Your task to perform on an android device: set the timer Image 0: 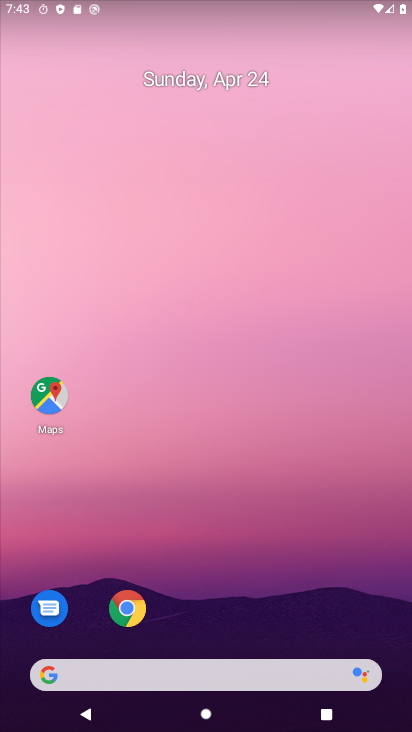
Step 0: drag from (259, 625) to (255, 97)
Your task to perform on an android device: set the timer Image 1: 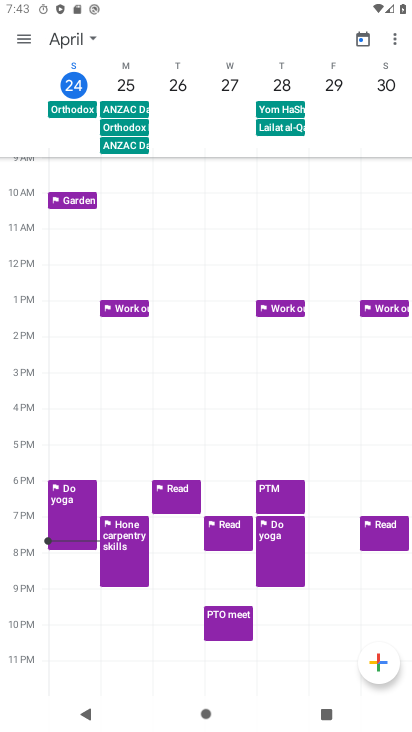
Step 1: press home button
Your task to perform on an android device: set the timer Image 2: 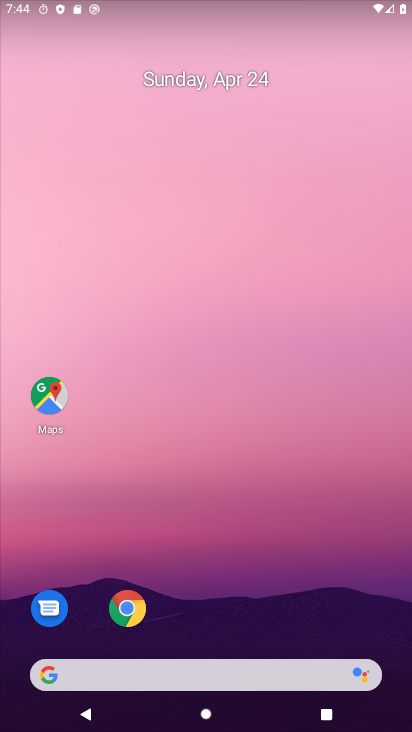
Step 2: drag from (235, 576) to (252, 149)
Your task to perform on an android device: set the timer Image 3: 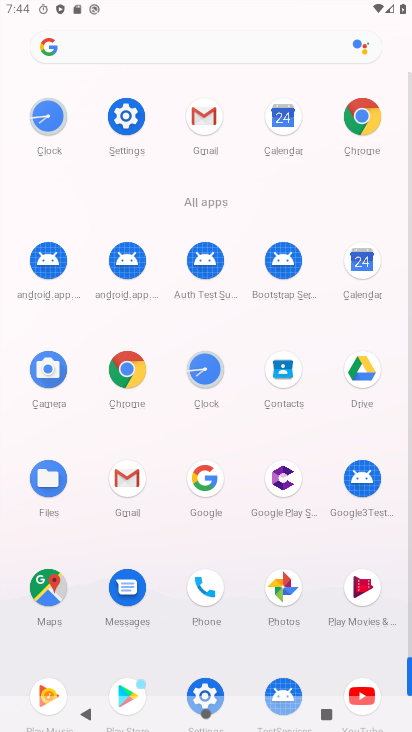
Step 3: click (208, 376)
Your task to perform on an android device: set the timer Image 4: 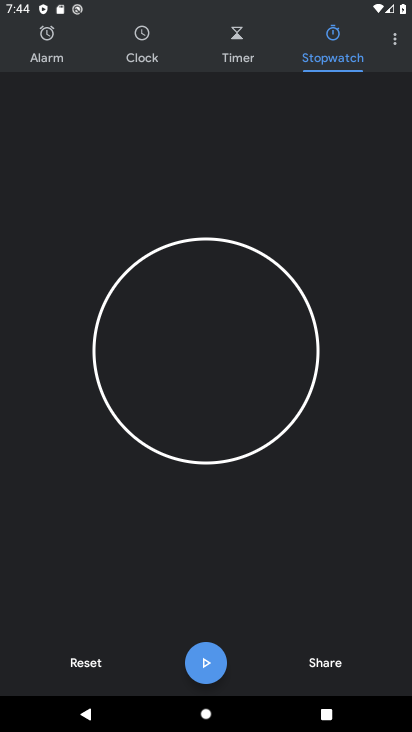
Step 4: click (238, 35)
Your task to perform on an android device: set the timer Image 5: 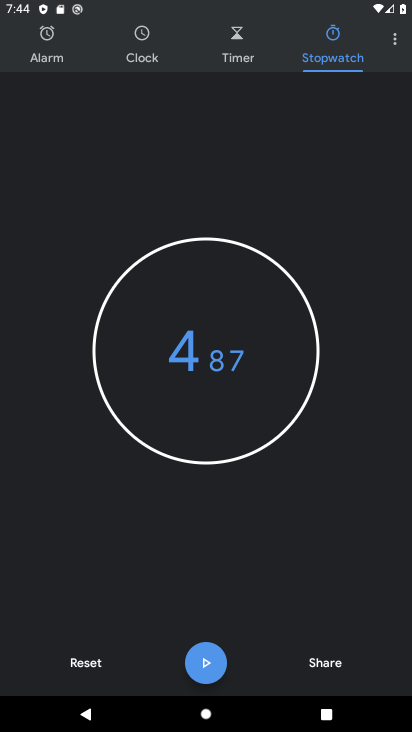
Step 5: click (238, 39)
Your task to perform on an android device: set the timer Image 6: 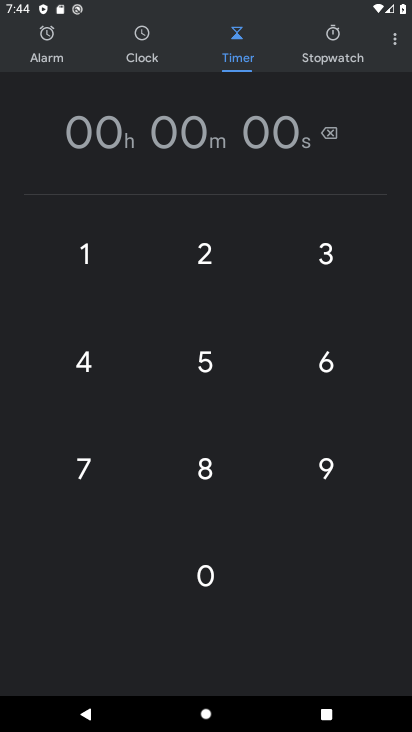
Step 6: click (91, 245)
Your task to perform on an android device: set the timer Image 7: 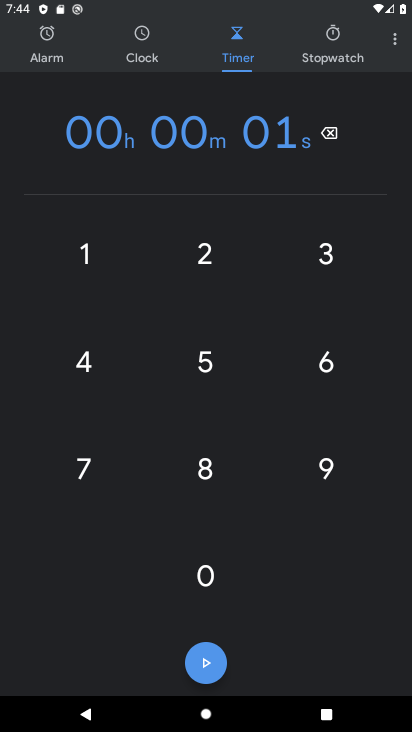
Step 7: click (91, 245)
Your task to perform on an android device: set the timer Image 8: 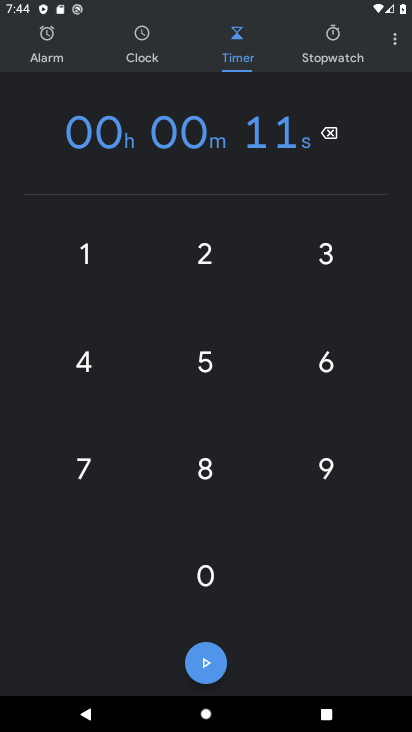
Step 8: task complete